Your task to perform on an android device: Open CNN.com Image 0: 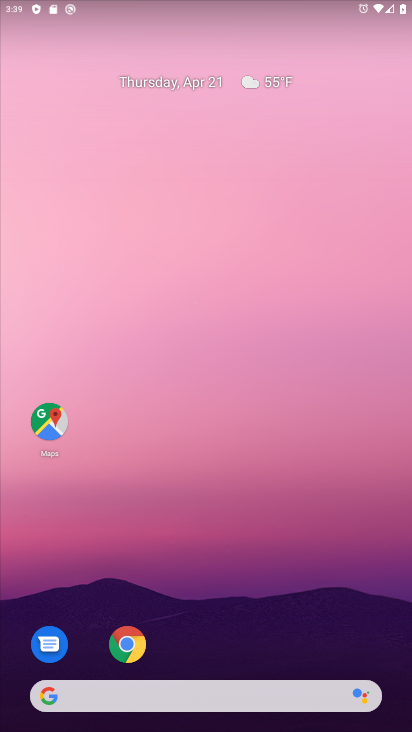
Step 0: click (134, 643)
Your task to perform on an android device: Open CNN.com Image 1: 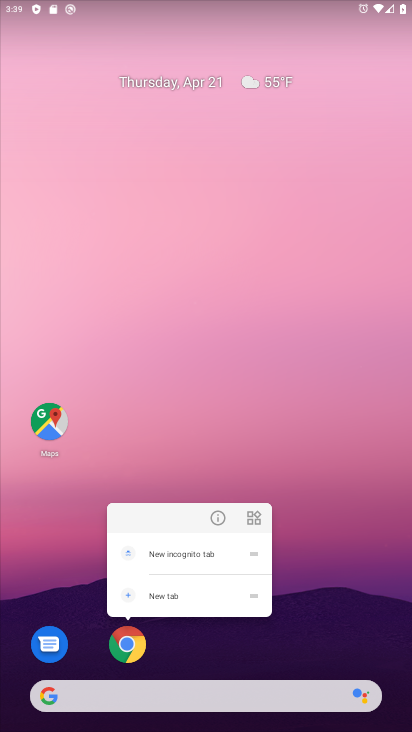
Step 1: click (134, 643)
Your task to perform on an android device: Open CNN.com Image 2: 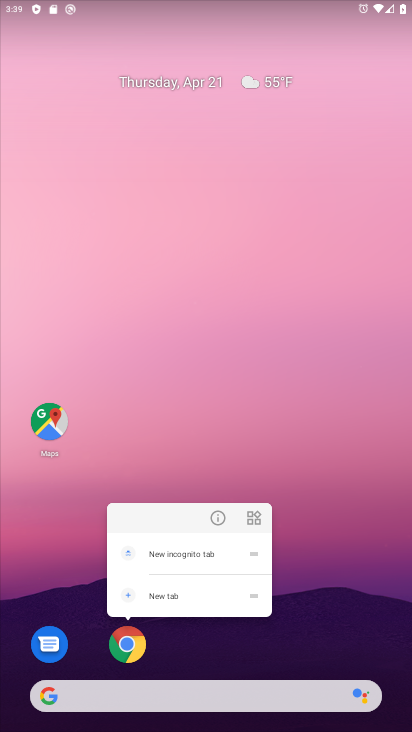
Step 2: click (122, 648)
Your task to perform on an android device: Open CNN.com Image 3: 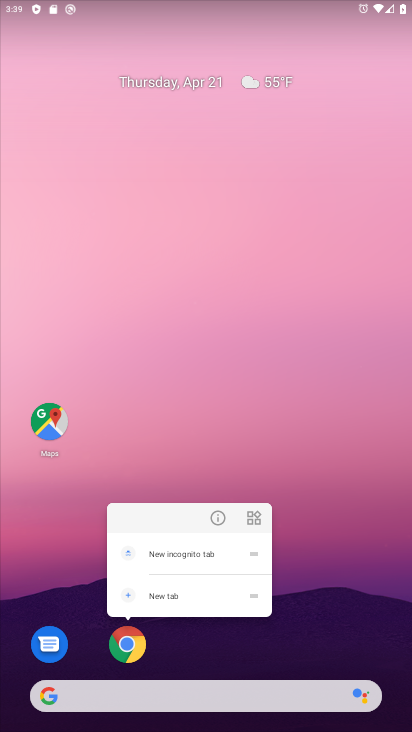
Step 3: click (137, 646)
Your task to perform on an android device: Open CNN.com Image 4: 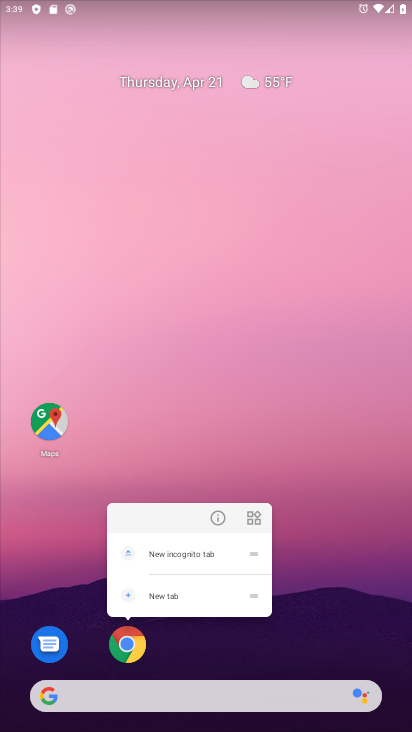
Step 4: click (142, 636)
Your task to perform on an android device: Open CNN.com Image 5: 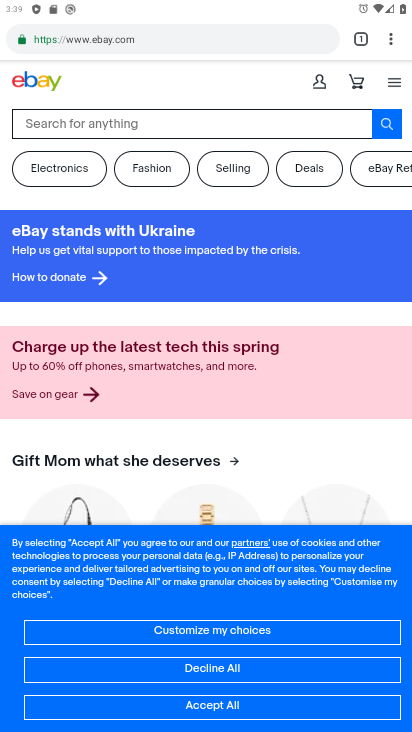
Step 5: click (252, 45)
Your task to perform on an android device: Open CNN.com Image 6: 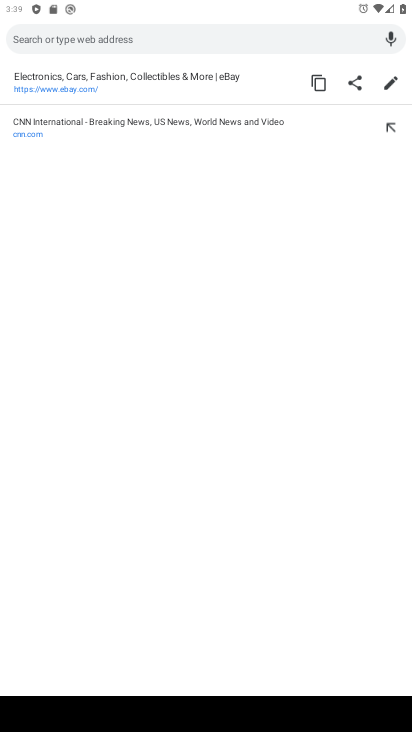
Step 6: click (144, 131)
Your task to perform on an android device: Open CNN.com Image 7: 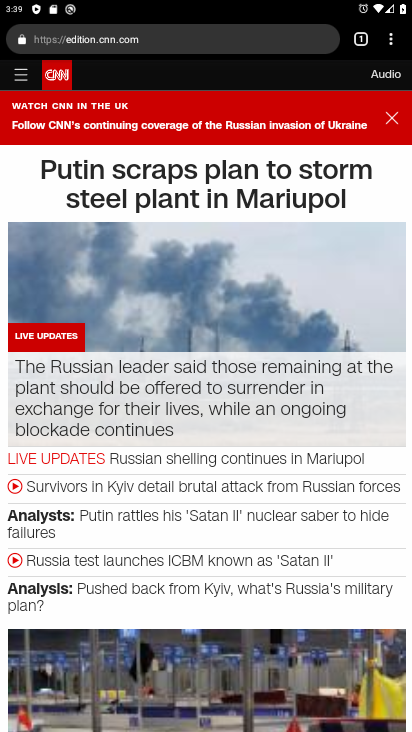
Step 7: task complete